Your task to perform on an android device: Clear the cart on amazon. Search for macbook pro 15 inch on amazon, select the first entry, and add it to the cart. Image 0: 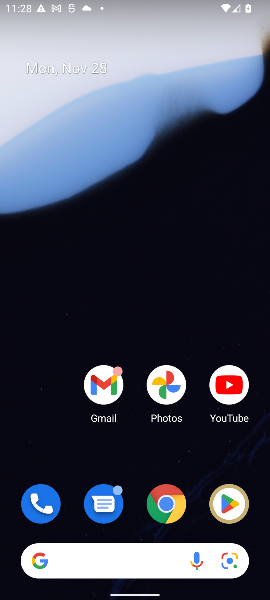
Step 0: click (170, 514)
Your task to perform on an android device: Clear the cart on amazon. Search for macbook pro 15 inch on amazon, select the first entry, and add it to the cart. Image 1: 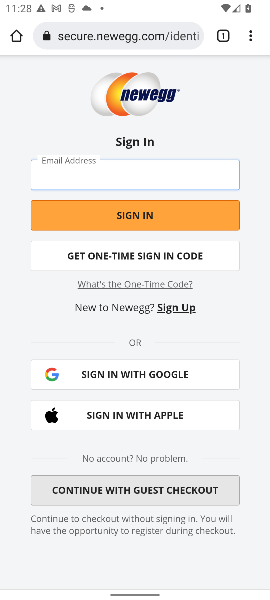
Step 1: click (140, 37)
Your task to perform on an android device: Clear the cart on amazon. Search for macbook pro 15 inch on amazon, select the first entry, and add it to the cart. Image 2: 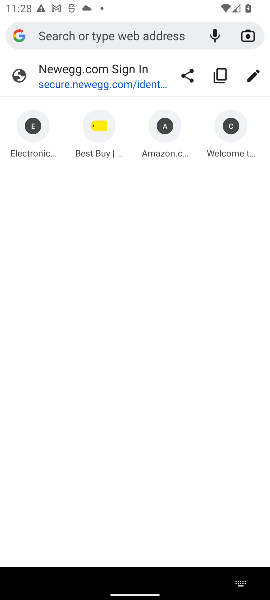
Step 2: type "amazon.com"
Your task to perform on an android device: Clear the cart on amazon. Search for macbook pro 15 inch on amazon, select the first entry, and add it to the cart. Image 3: 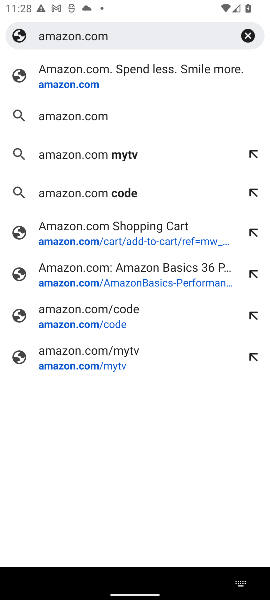
Step 3: click (61, 88)
Your task to perform on an android device: Clear the cart on amazon. Search for macbook pro 15 inch on amazon, select the first entry, and add it to the cart. Image 4: 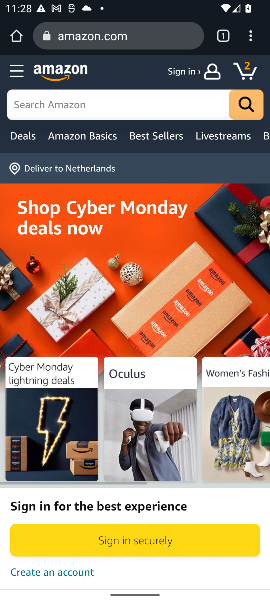
Step 4: click (251, 72)
Your task to perform on an android device: Clear the cart on amazon. Search for macbook pro 15 inch on amazon, select the first entry, and add it to the cart. Image 5: 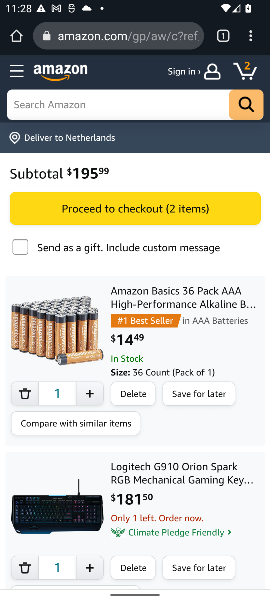
Step 5: click (125, 393)
Your task to perform on an android device: Clear the cart on amazon. Search for macbook pro 15 inch on amazon, select the first entry, and add it to the cart. Image 6: 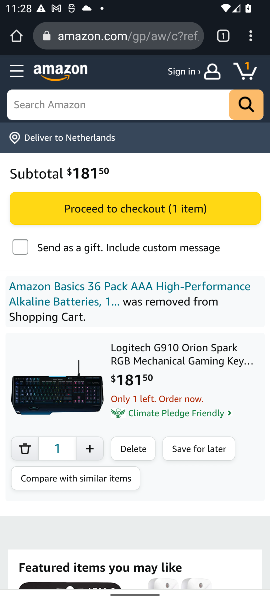
Step 6: click (130, 451)
Your task to perform on an android device: Clear the cart on amazon. Search for macbook pro 15 inch on amazon, select the first entry, and add it to the cart. Image 7: 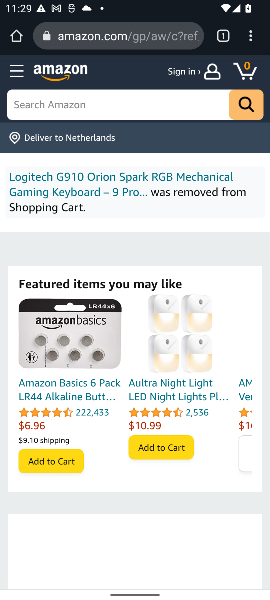
Step 7: click (49, 107)
Your task to perform on an android device: Clear the cart on amazon. Search for macbook pro 15 inch on amazon, select the first entry, and add it to the cart. Image 8: 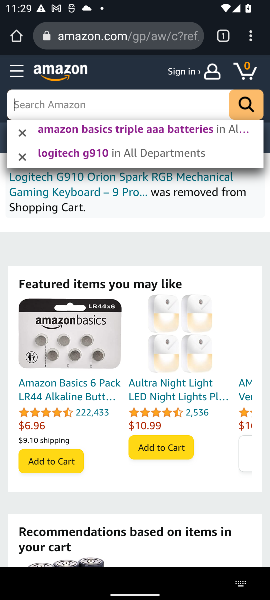
Step 8: type "macbook pro 15 inch"
Your task to perform on an android device: Clear the cart on amazon. Search for macbook pro 15 inch on amazon, select the first entry, and add it to the cart. Image 9: 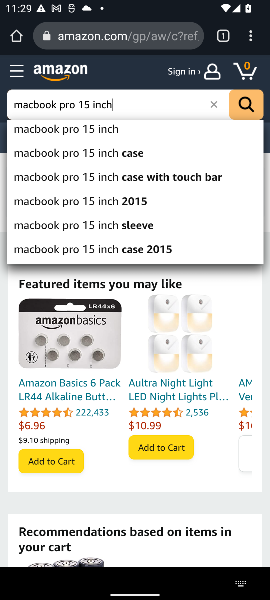
Step 9: click (81, 134)
Your task to perform on an android device: Clear the cart on amazon. Search for macbook pro 15 inch on amazon, select the first entry, and add it to the cart. Image 10: 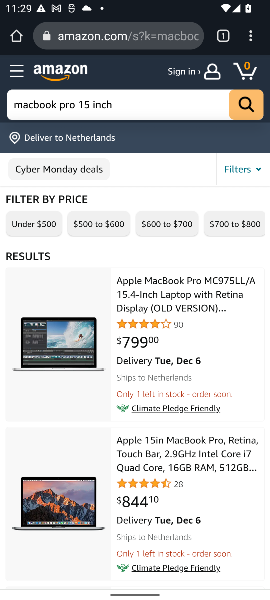
Step 10: click (125, 314)
Your task to perform on an android device: Clear the cart on amazon. Search for macbook pro 15 inch on amazon, select the first entry, and add it to the cart. Image 11: 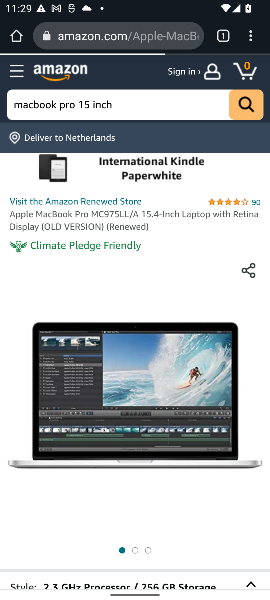
Step 11: drag from (135, 410) to (139, 265)
Your task to perform on an android device: Clear the cart on amazon. Search for macbook pro 15 inch on amazon, select the first entry, and add it to the cart. Image 12: 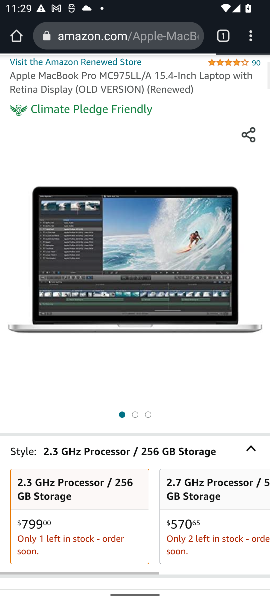
Step 12: drag from (129, 486) to (130, 214)
Your task to perform on an android device: Clear the cart on amazon. Search for macbook pro 15 inch on amazon, select the first entry, and add it to the cart. Image 13: 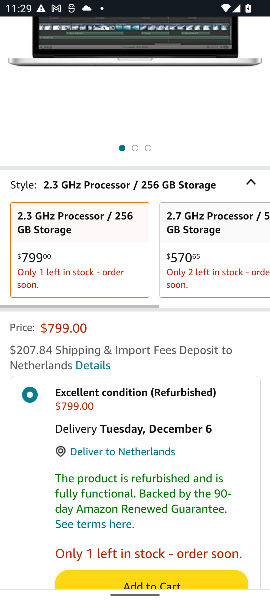
Step 13: drag from (117, 445) to (111, 248)
Your task to perform on an android device: Clear the cart on amazon. Search for macbook pro 15 inch on amazon, select the first entry, and add it to the cart. Image 14: 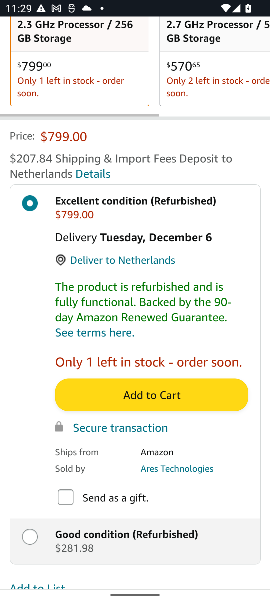
Step 14: click (115, 389)
Your task to perform on an android device: Clear the cart on amazon. Search for macbook pro 15 inch on amazon, select the first entry, and add it to the cart. Image 15: 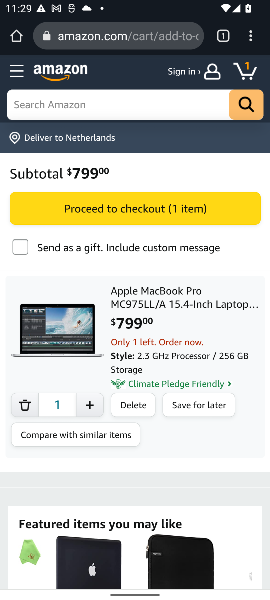
Step 15: task complete